Your task to perform on an android device: turn on notifications settings in the gmail app Image 0: 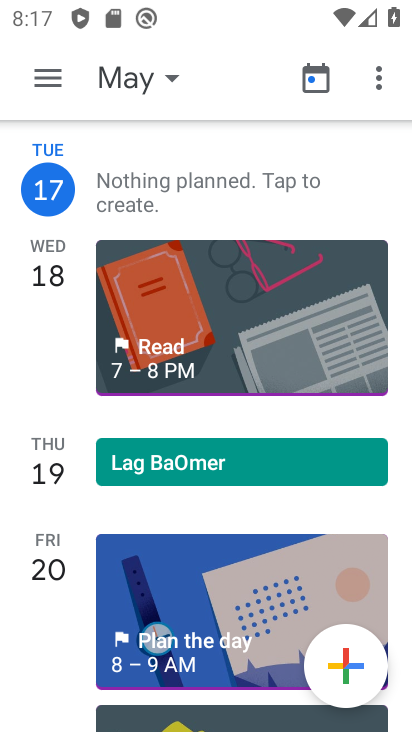
Step 0: press home button
Your task to perform on an android device: turn on notifications settings in the gmail app Image 1: 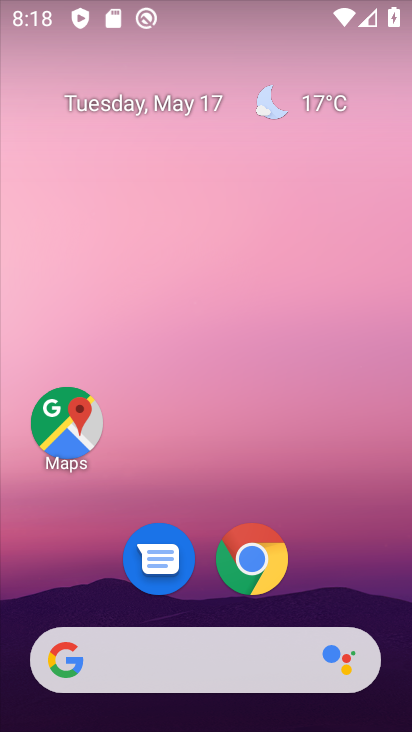
Step 1: drag from (199, 668) to (201, 58)
Your task to perform on an android device: turn on notifications settings in the gmail app Image 2: 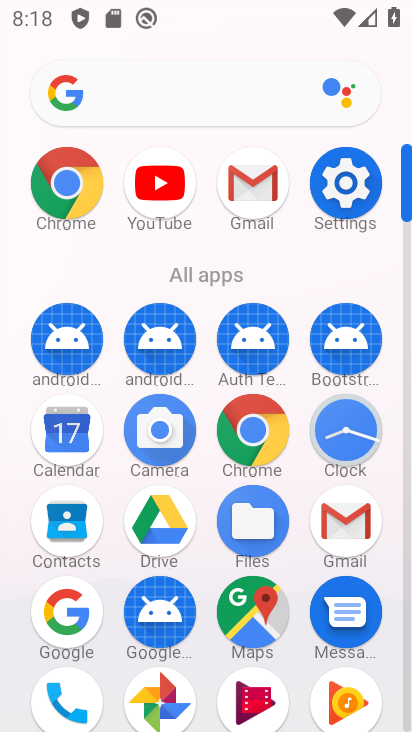
Step 2: click (347, 528)
Your task to perform on an android device: turn on notifications settings in the gmail app Image 3: 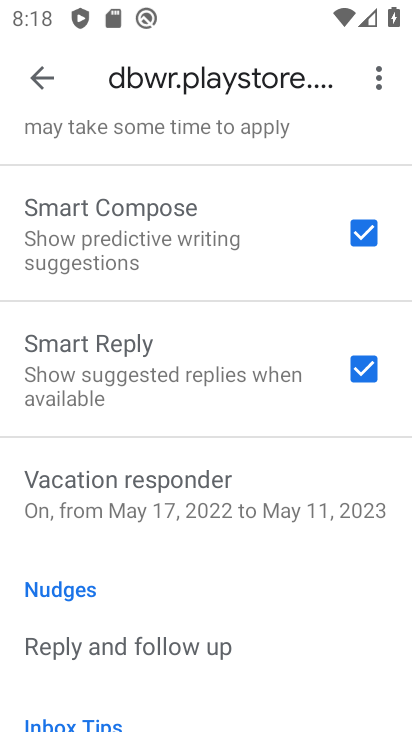
Step 3: drag from (189, 637) to (210, 141)
Your task to perform on an android device: turn on notifications settings in the gmail app Image 4: 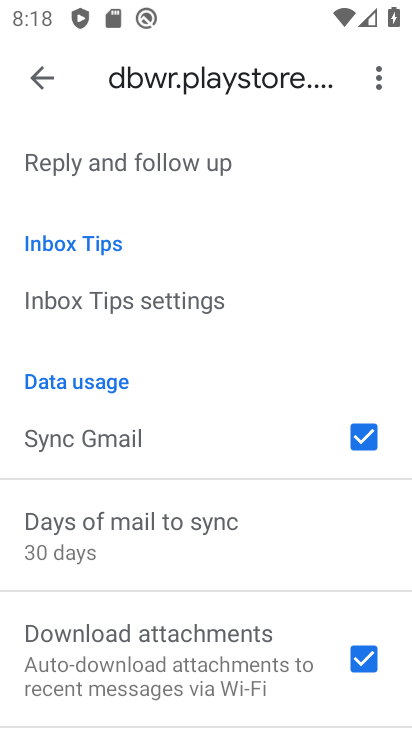
Step 4: drag from (148, 201) to (193, 495)
Your task to perform on an android device: turn on notifications settings in the gmail app Image 5: 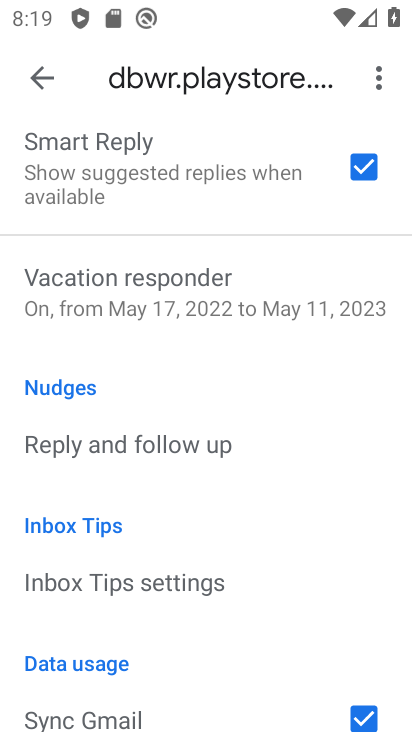
Step 5: drag from (128, 168) to (203, 585)
Your task to perform on an android device: turn on notifications settings in the gmail app Image 6: 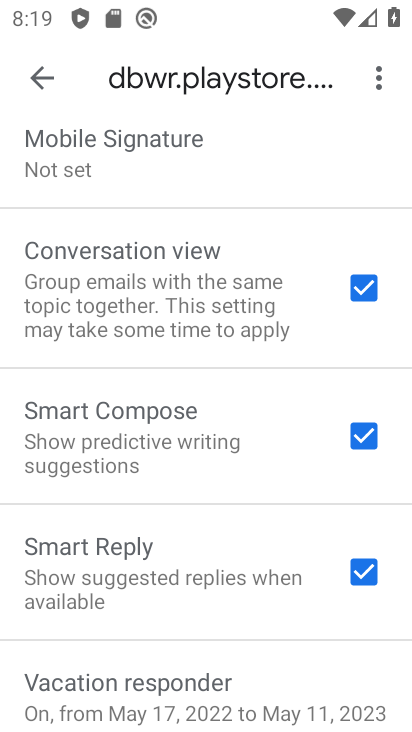
Step 6: drag from (130, 141) to (220, 548)
Your task to perform on an android device: turn on notifications settings in the gmail app Image 7: 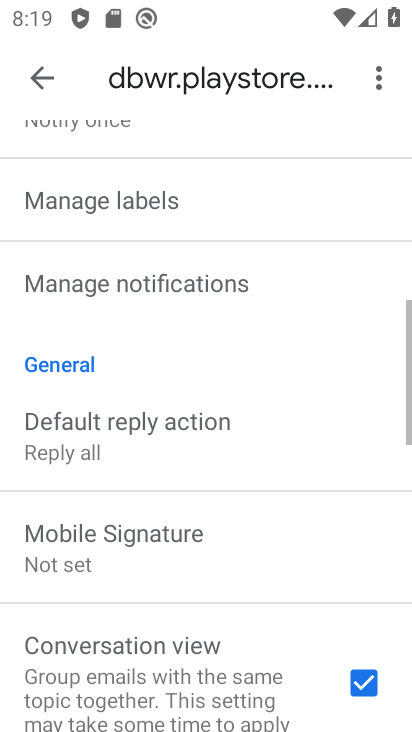
Step 7: click (172, 301)
Your task to perform on an android device: turn on notifications settings in the gmail app Image 8: 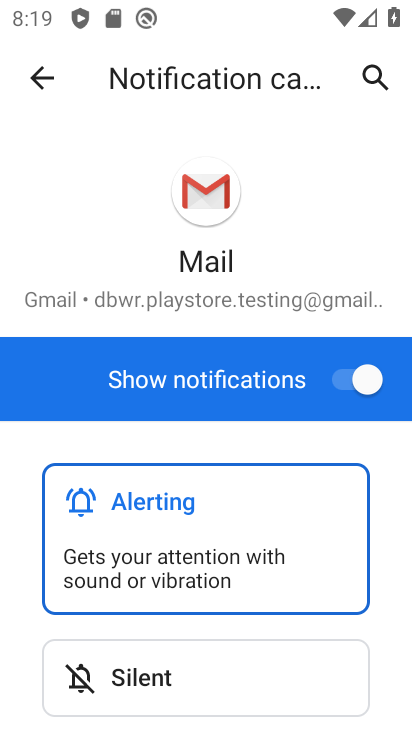
Step 8: task complete